Your task to perform on an android device: open the mobile data screen to see how much data has been used Image 0: 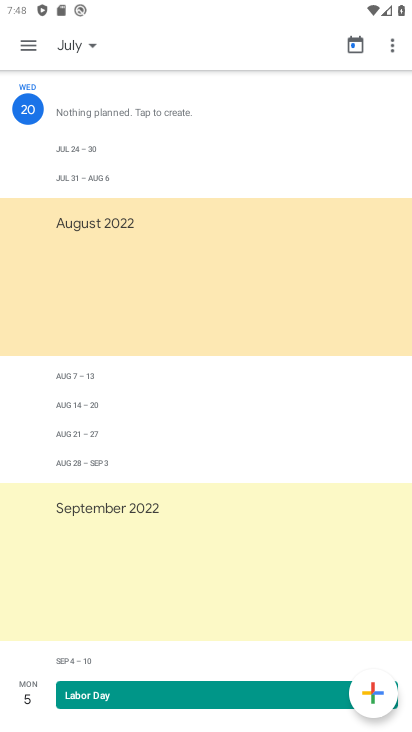
Step 0: press home button
Your task to perform on an android device: open the mobile data screen to see how much data has been used Image 1: 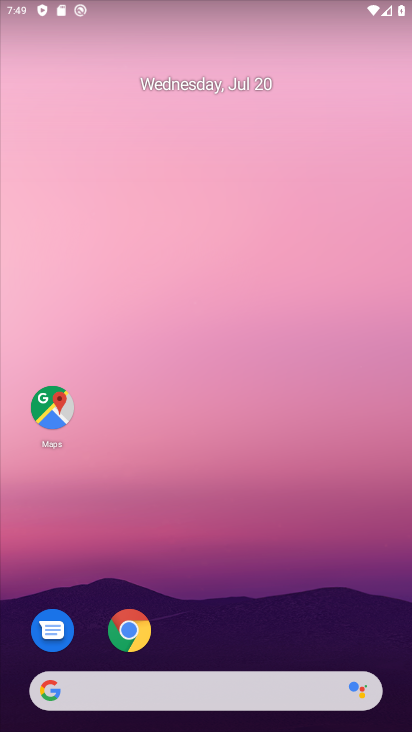
Step 1: drag from (326, 609) to (350, 2)
Your task to perform on an android device: open the mobile data screen to see how much data has been used Image 2: 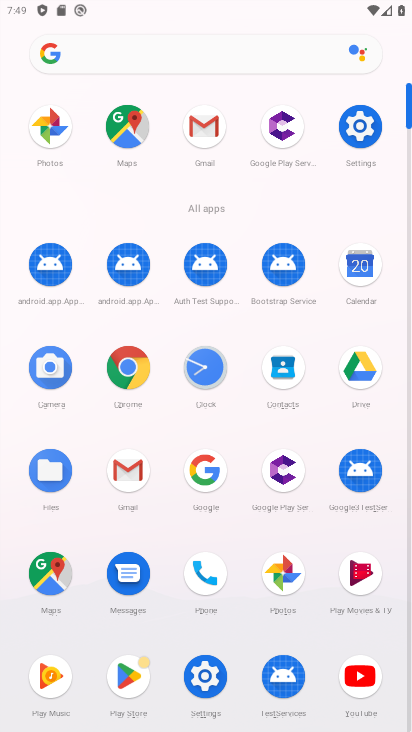
Step 2: click (353, 129)
Your task to perform on an android device: open the mobile data screen to see how much data has been used Image 3: 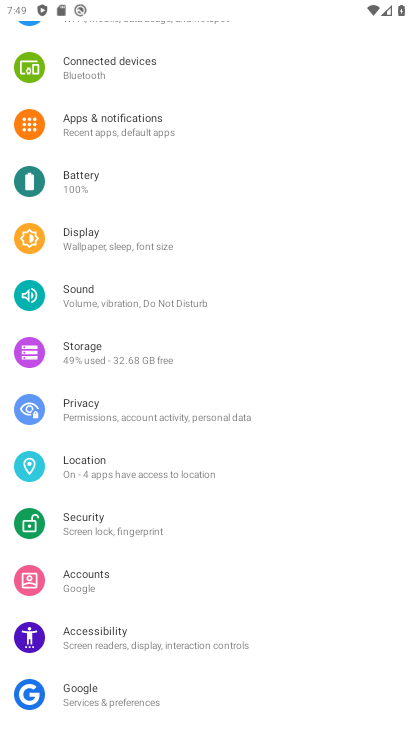
Step 3: drag from (94, 282) to (128, 519)
Your task to perform on an android device: open the mobile data screen to see how much data has been used Image 4: 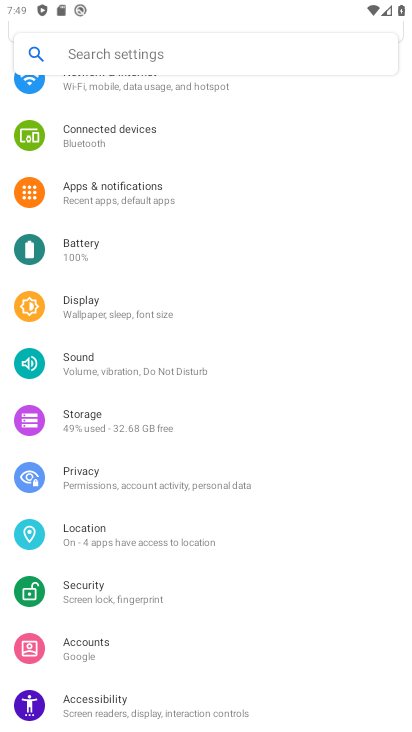
Step 4: click (158, 85)
Your task to perform on an android device: open the mobile data screen to see how much data has been used Image 5: 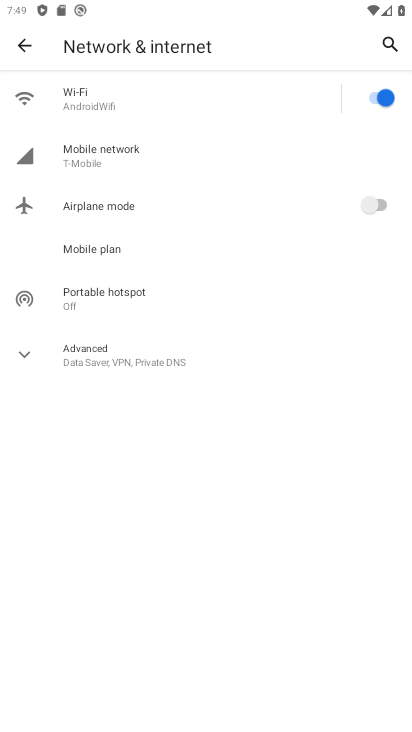
Step 5: click (118, 155)
Your task to perform on an android device: open the mobile data screen to see how much data has been used Image 6: 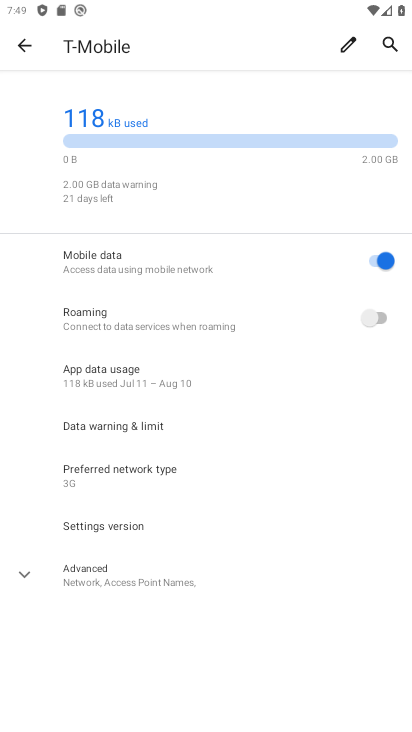
Step 6: click (189, 378)
Your task to perform on an android device: open the mobile data screen to see how much data has been used Image 7: 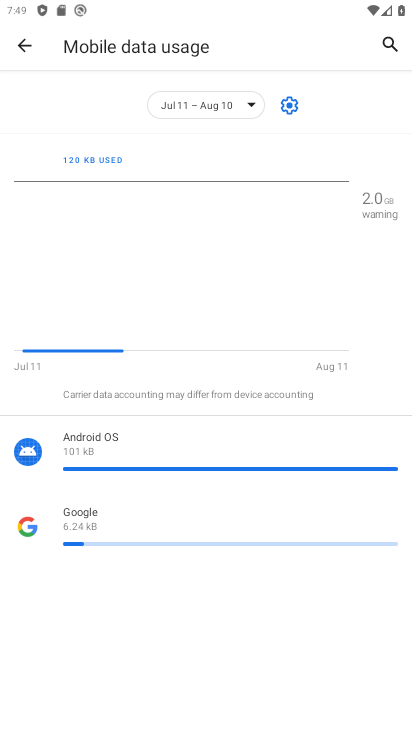
Step 7: task complete